Your task to perform on an android device: clear all cookies in the chrome app Image 0: 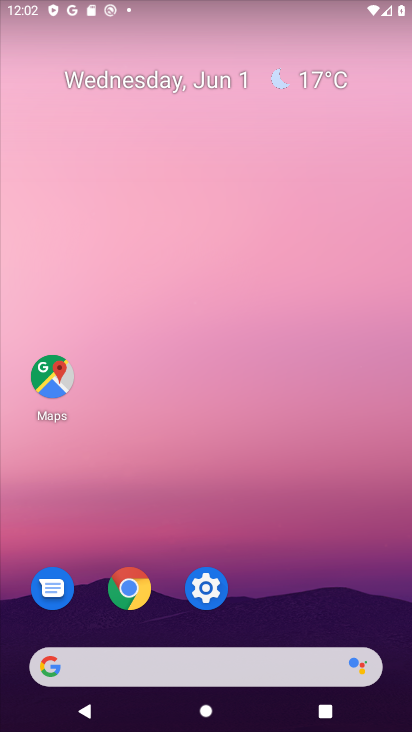
Step 0: press home button
Your task to perform on an android device: clear all cookies in the chrome app Image 1: 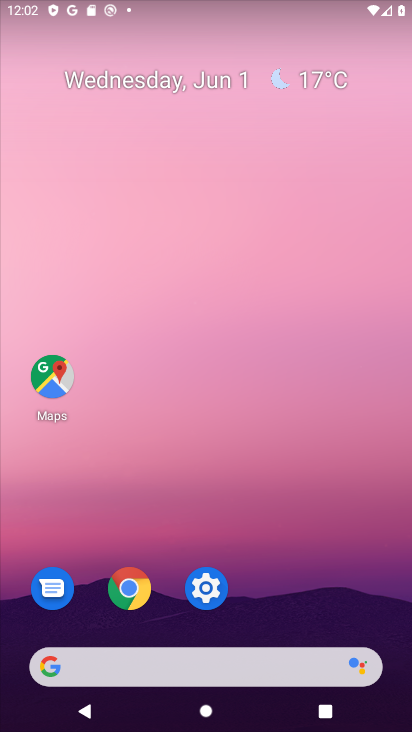
Step 1: click (119, 588)
Your task to perform on an android device: clear all cookies in the chrome app Image 2: 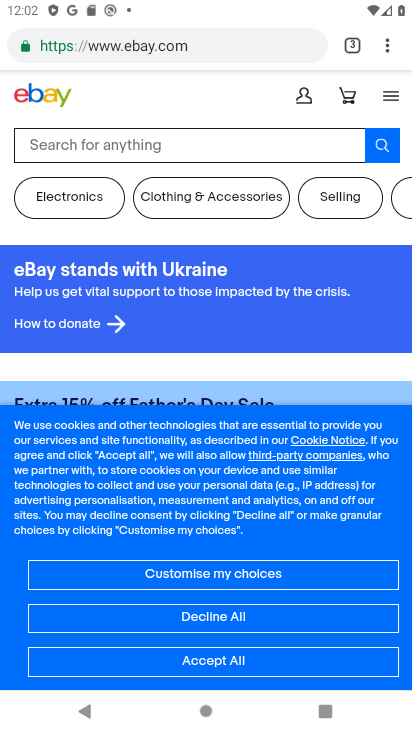
Step 2: click (384, 48)
Your task to perform on an android device: clear all cookies in the chrome app Image 3: 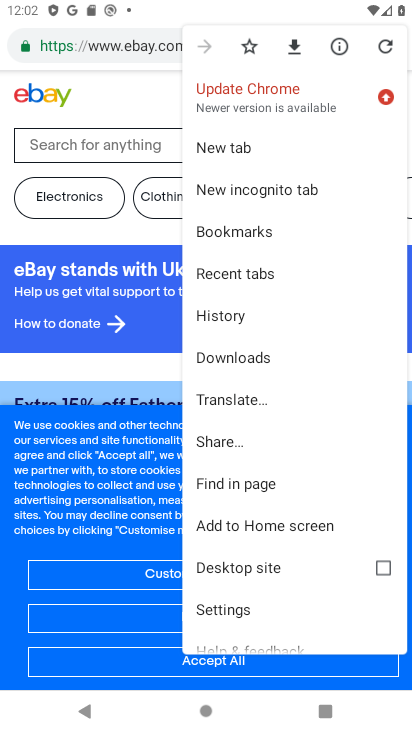
Step 3: click (233, 447)
Your task to perform on an android device: clear all cookies in the chrome app Image 4: 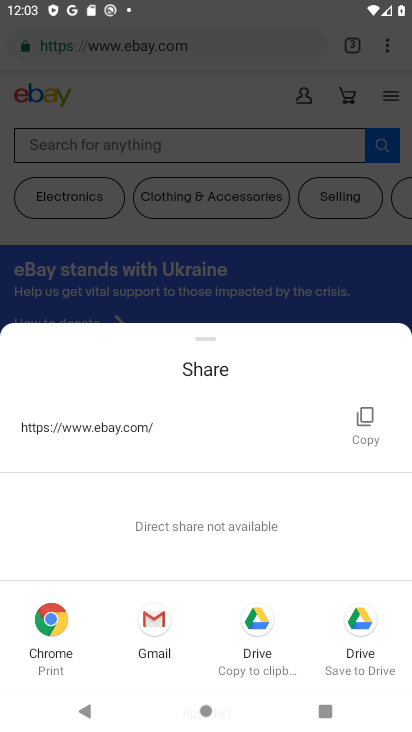
Step 4: press back button
Your task to perform on an android device: clear all cookies in the chrome app Image 5: 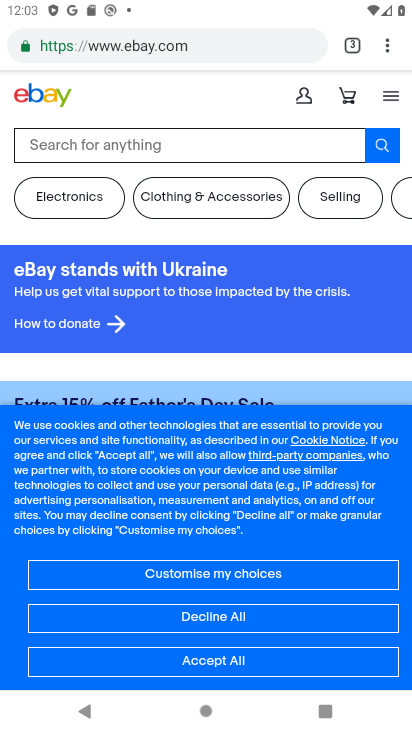
Step 5: click (390, 56)
Your task to perform on an android device: clear all cookies in the chrome app Image 6: 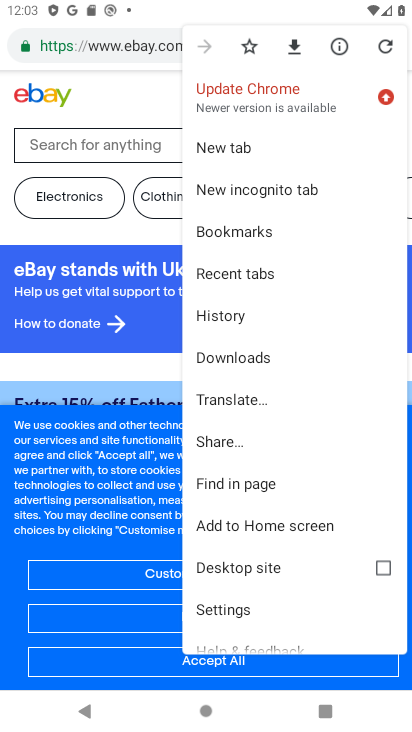
Step 6: click (218, 322)
Your task to perform on an android device: clear all cookies in the chrome app Image 7: 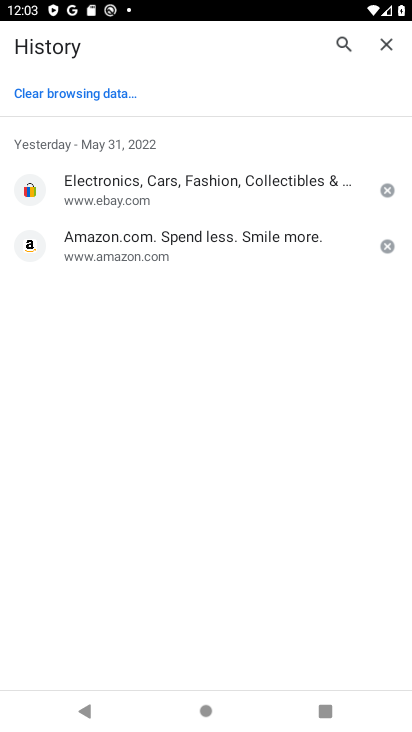
Step 7: click (78, 90)
Your task to perform on an android device: clear all cookies in the chrome app Image 8: 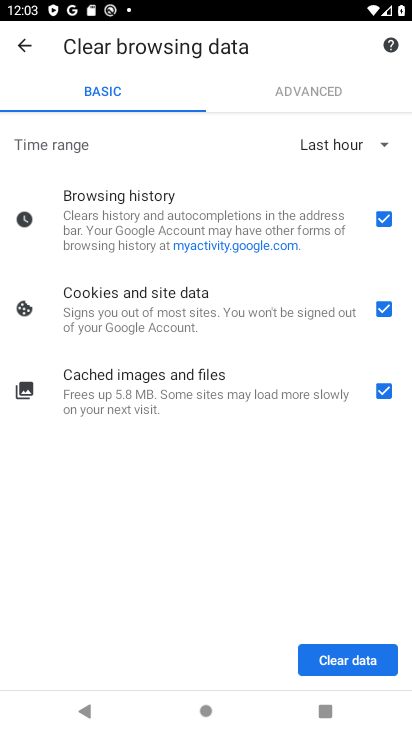
Step 8: click (352, 663)
Your task to perform on an android device: clear all cookies in the chrome app Image 9: 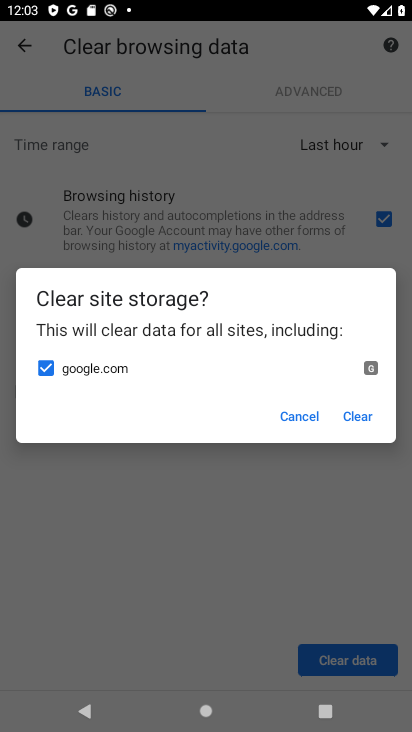
Step 9: task complete